Your task to perform on an android device: stop showing notifications on the lock screen Image 0: 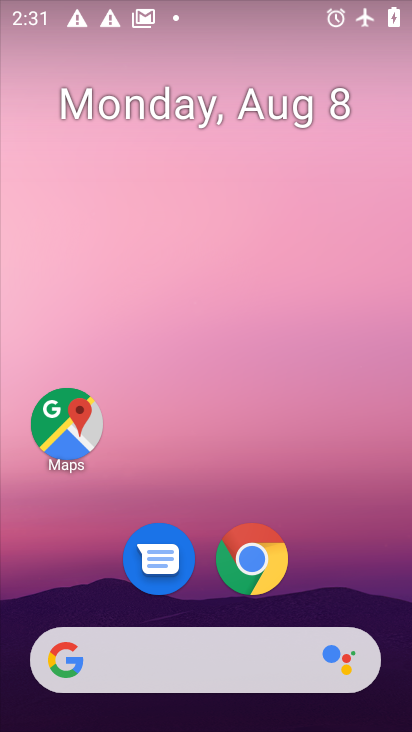
Step 0: drag from (168, 658) to (264, 115)
Your task to perform on an android device: stop showing notifications on the lock screen Image 1: 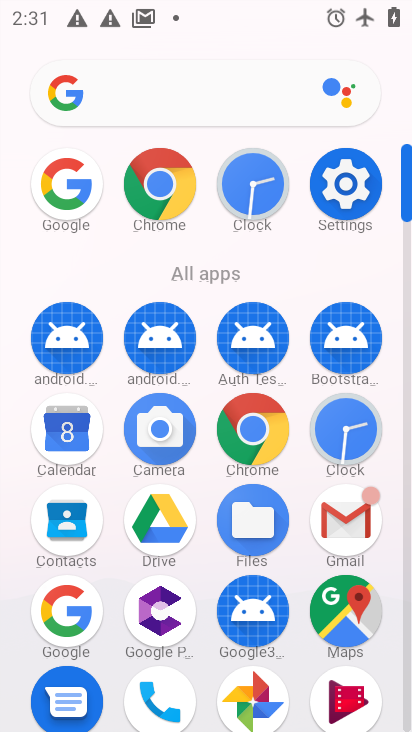
Step 1: click (346, 184)
Your task to perform on an android device: stop showing notifications on the lock screen Image 2: 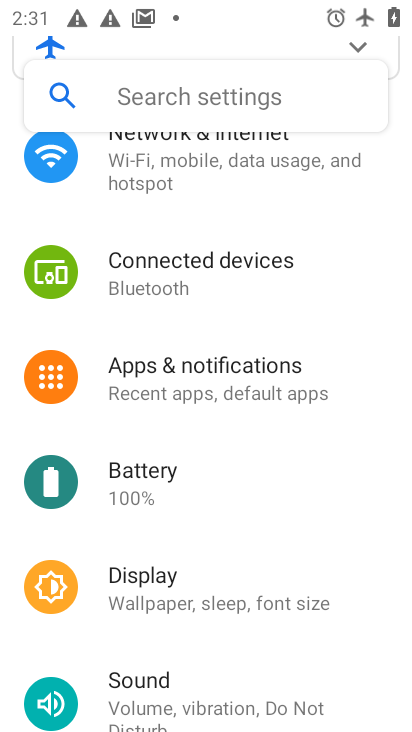
Step 2: drag from (251, 433) to (315, 308)
Your task to perform on an android device: stop showing notifications on the lock screen Image 3: 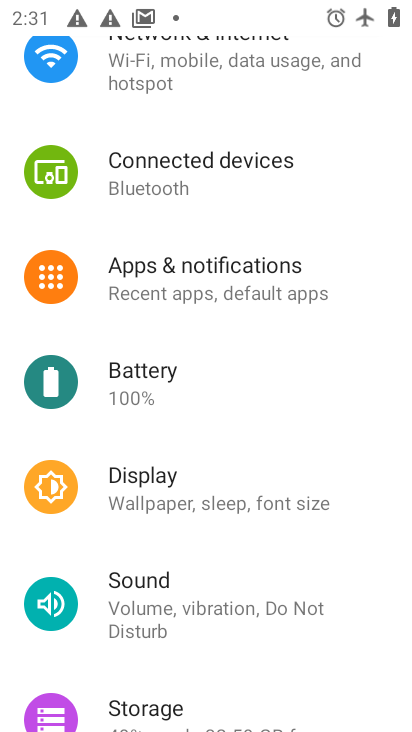
Step 3: click (243, 285)
Your task to perform on an android device: stop showing notifications on the lock screen Image 4: 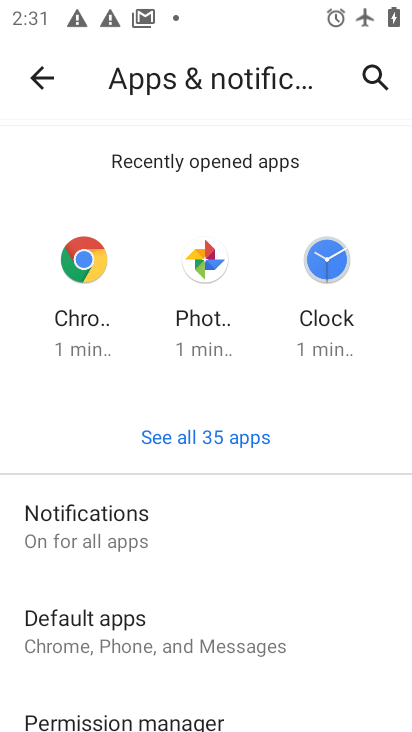
Step 4: click (133, 527)
Your task to perform on an android device: stop showing notifications on the lock screen Image 5: 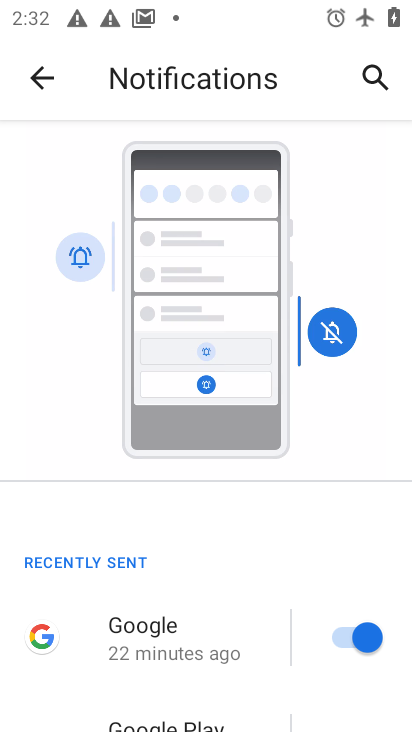
Step 5: drag from (186, 589) to (220, 518)
Your task to perform on an android device: stop showing notifications on the lock screen Image 6: 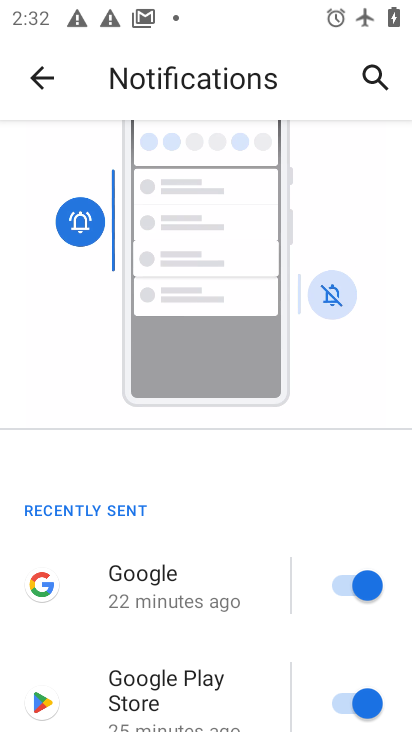
Step 6: drag from (154, 640) to (257, 500)
Your task to perform on an android device: stop showing notifications on the lock screen Image 7: 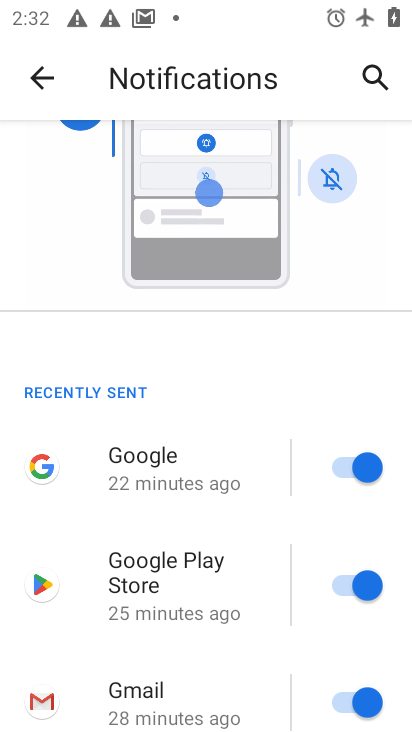
Step 7: drag from (156, 637) to (212, 514)
Your task to perform on an android device: stop showing notifications on the lock screen Image 8: 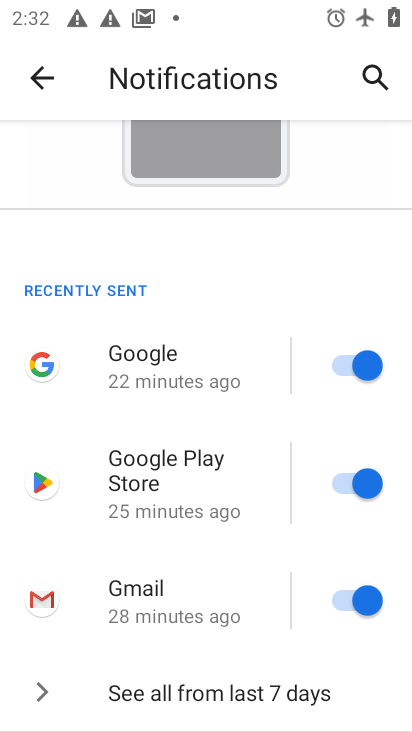
Step 8: drag from (148, 646) to (188, 469)
Your task to perform on an android device: stop showing notifications on the lock screen Image 9: 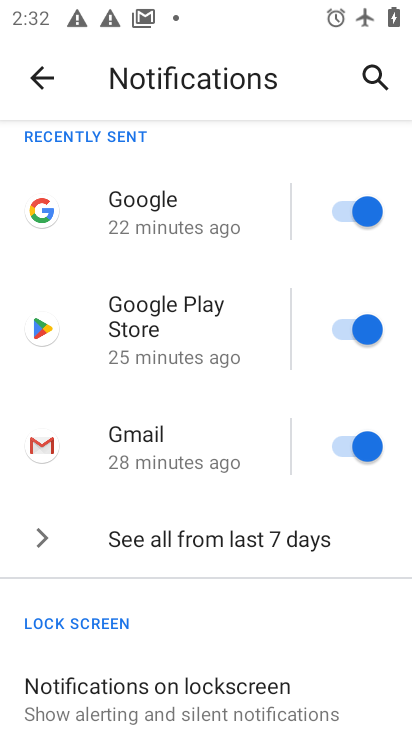
Step 9: drag from (162, 630) to (197, 455)
Your task to perform on an android device: stop showing notifications on the lock screen Image 10: 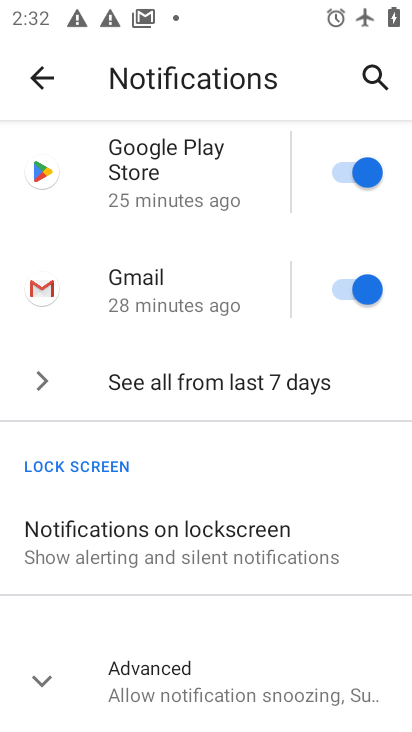
Step 10: click (212, 532)
Your task to perform on an android device: stop showing notifications on the lock screen Image 11: 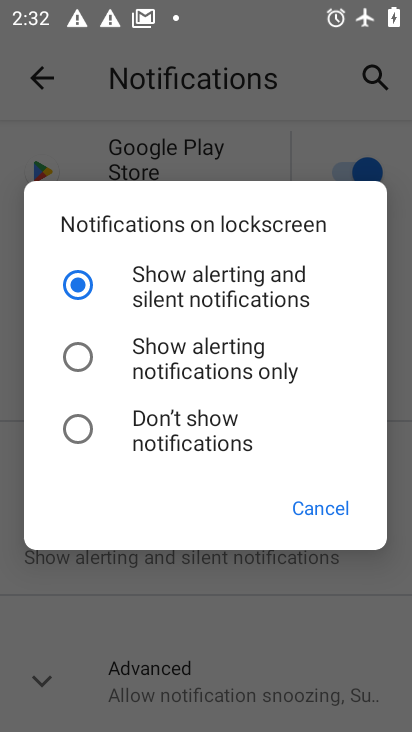
Step 11: click (75, 426)
Your task to perform on an android device: stop showing notifications on the lock screen Image 12: 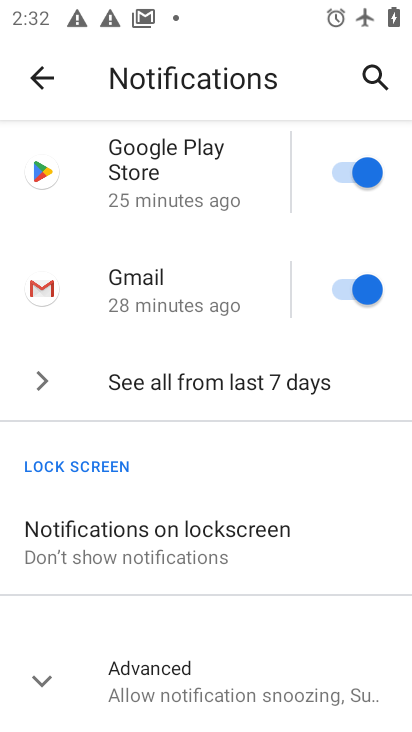
Step 12: task complete